Your task to perform on an android device: toggle pop-ups in chrome Image 0: 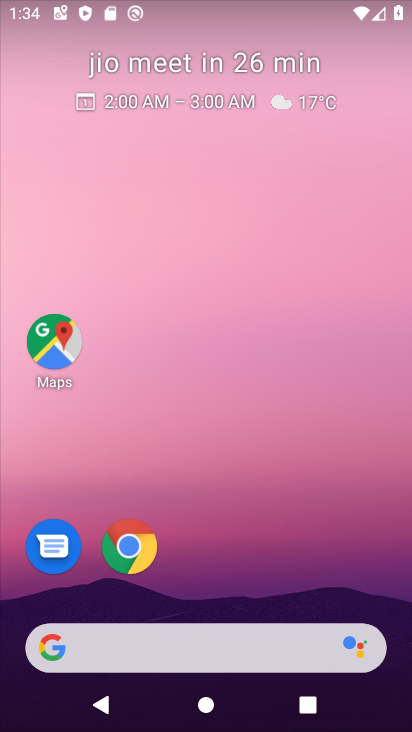
Step 0: click (136, 566)
Your task to perform on an android device: toggle pop-ups in chrome Image 1: 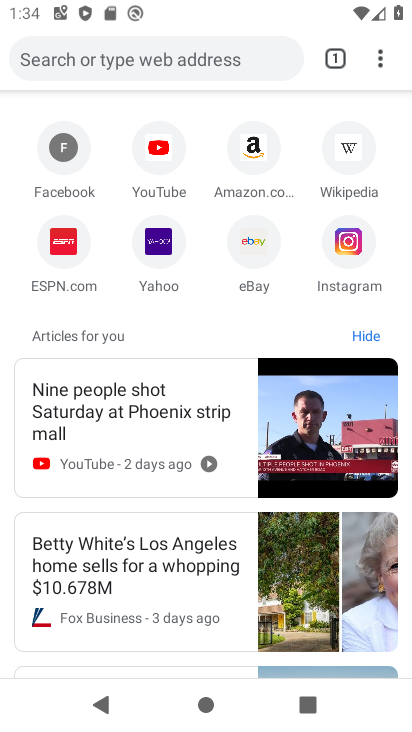
Step 1: task complete